Your task to perform on an android device: Go to CNN.com Image 0: 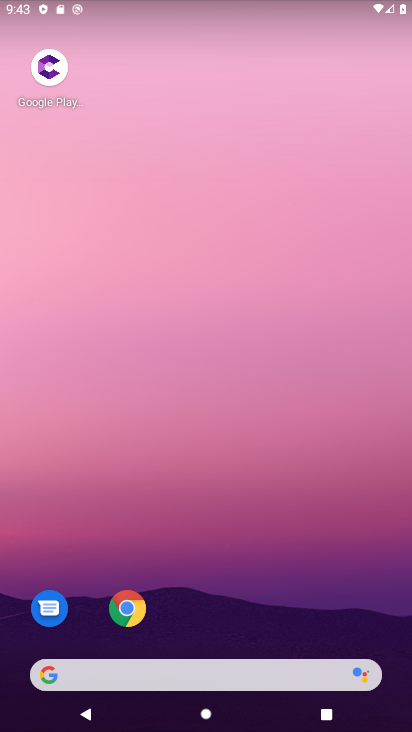
Step 0: click (124, 611)
Your task to perform on an android device: Go to CNN.com Image 1: 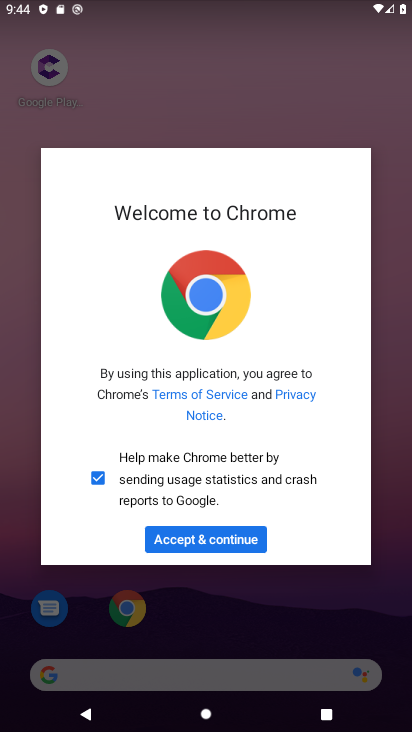
Step 1: click (244, 545)
Your task to perform on an android device: Go to CNN.com Image 2: 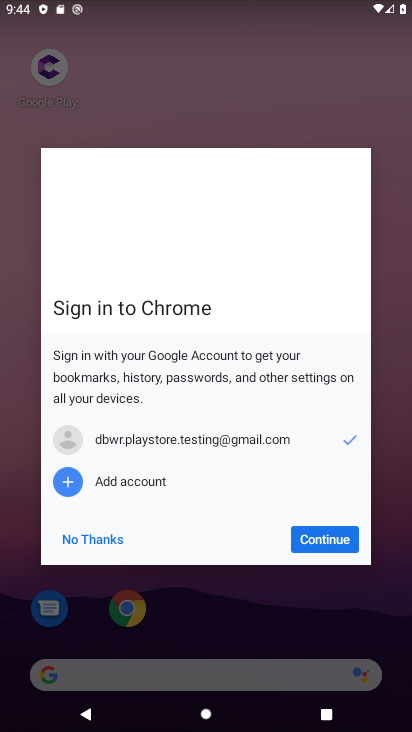
Step 2: click (296, 534)
Your task to perform on an android device: Go to CNN.com Image 3: 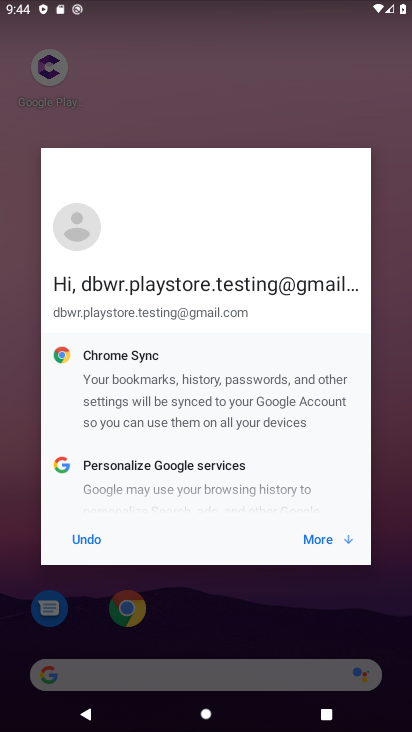
Step 3: click (304, 541)
Your task to perform on an android device: Go to CNN.com Image 4: 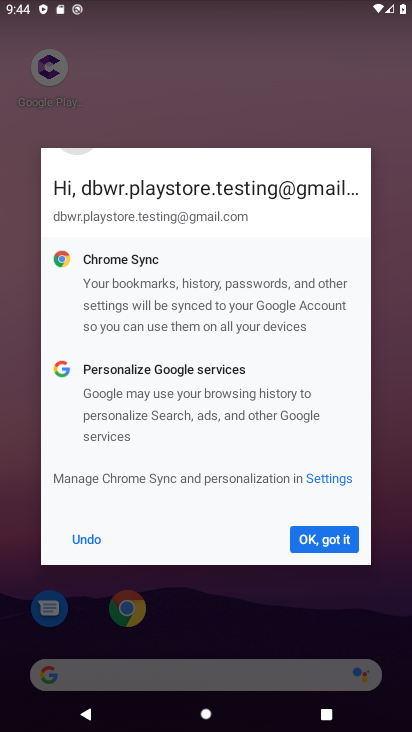
Step 4: click (304, 541)
Your task to perform on an android device: Go to CNN.com Image 5: 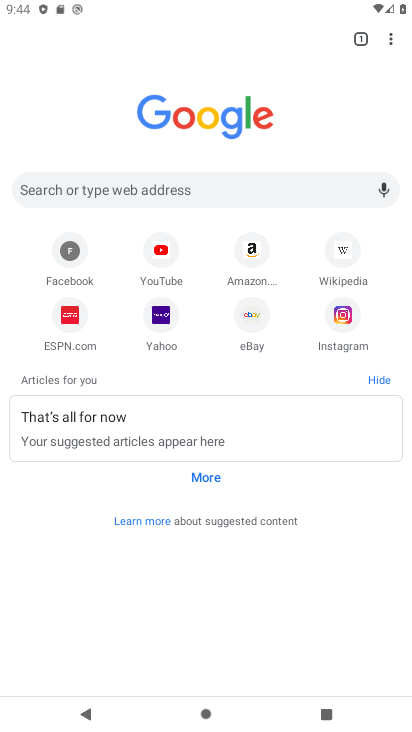
Step 5: click (212, 186)
Your task to perform on an android device: Go to CNN.com Image 6: 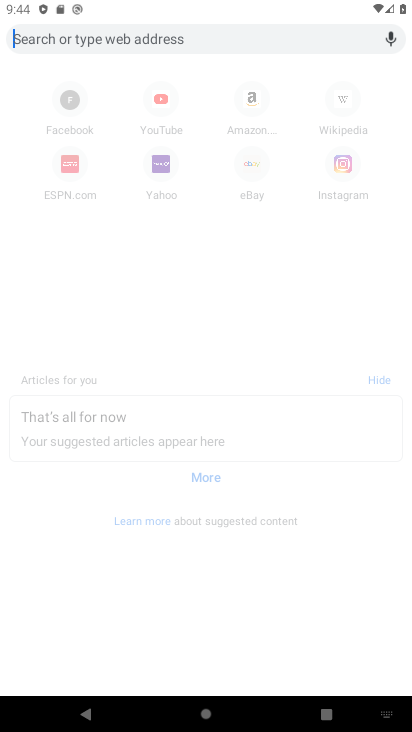
Step 6: type "cnn"
Your task to perform on an android device: Go to CNN.com Image 7: 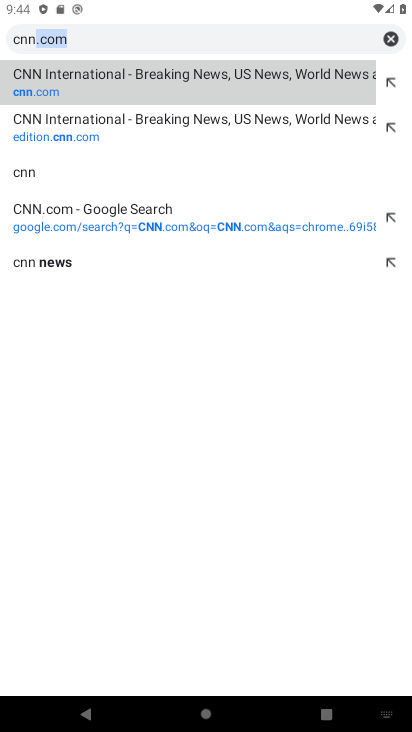
Step 7: click (60, 75)
Your task to perform on an android device: Go to CNN.com Image 8: 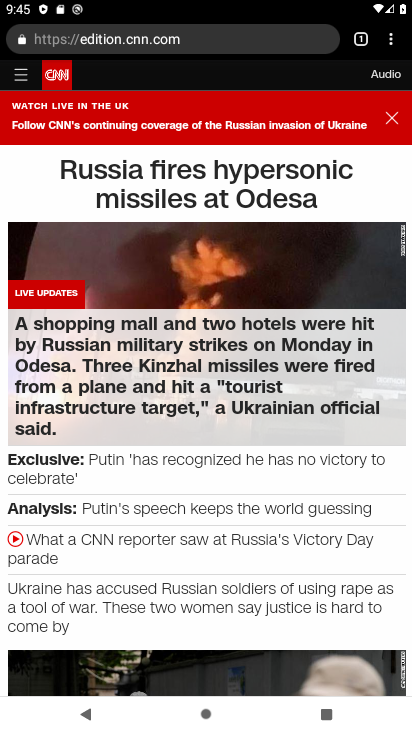
Step 8: task complete